Your task to perform on an android device: Open eBay Image 0: 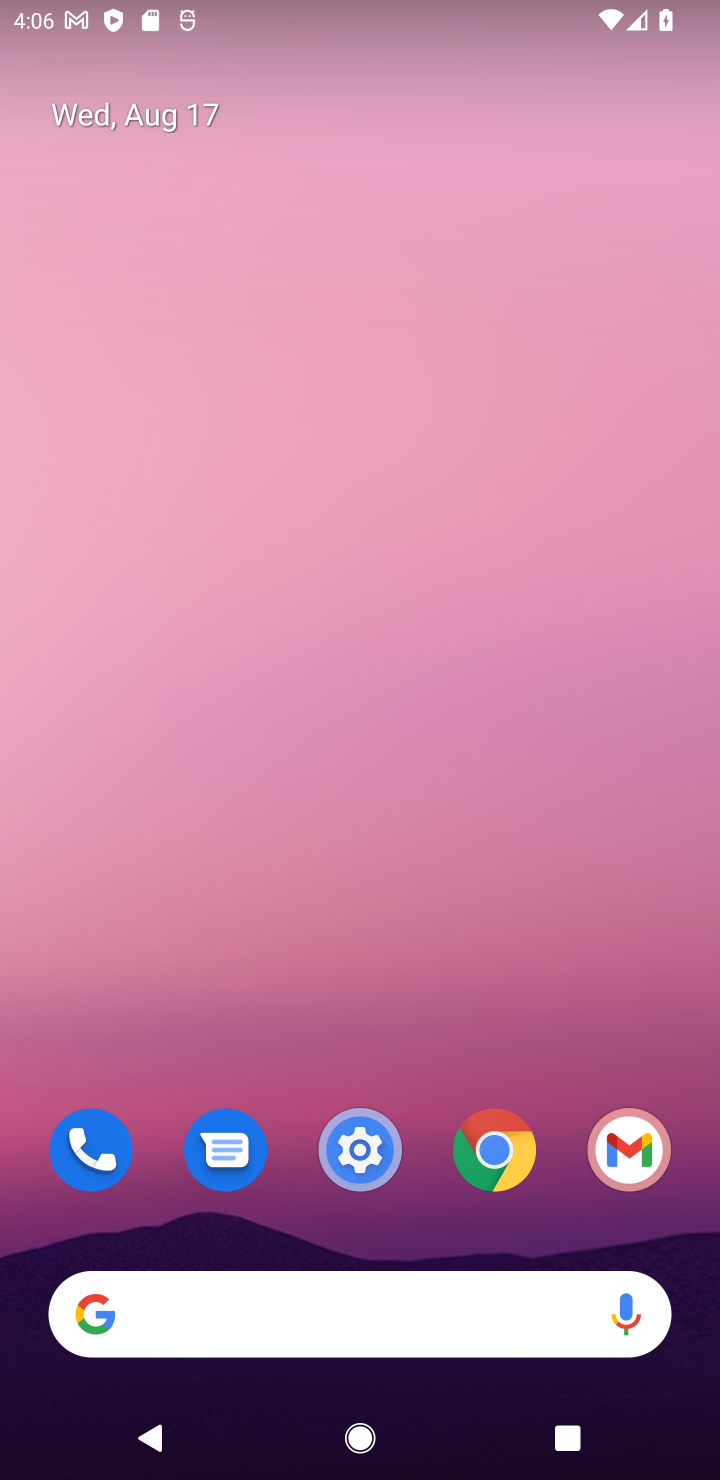
Step 0: drag from (645, 1042) to (300, 53)
Your task to perform on an android device: Open eBay Image 1: 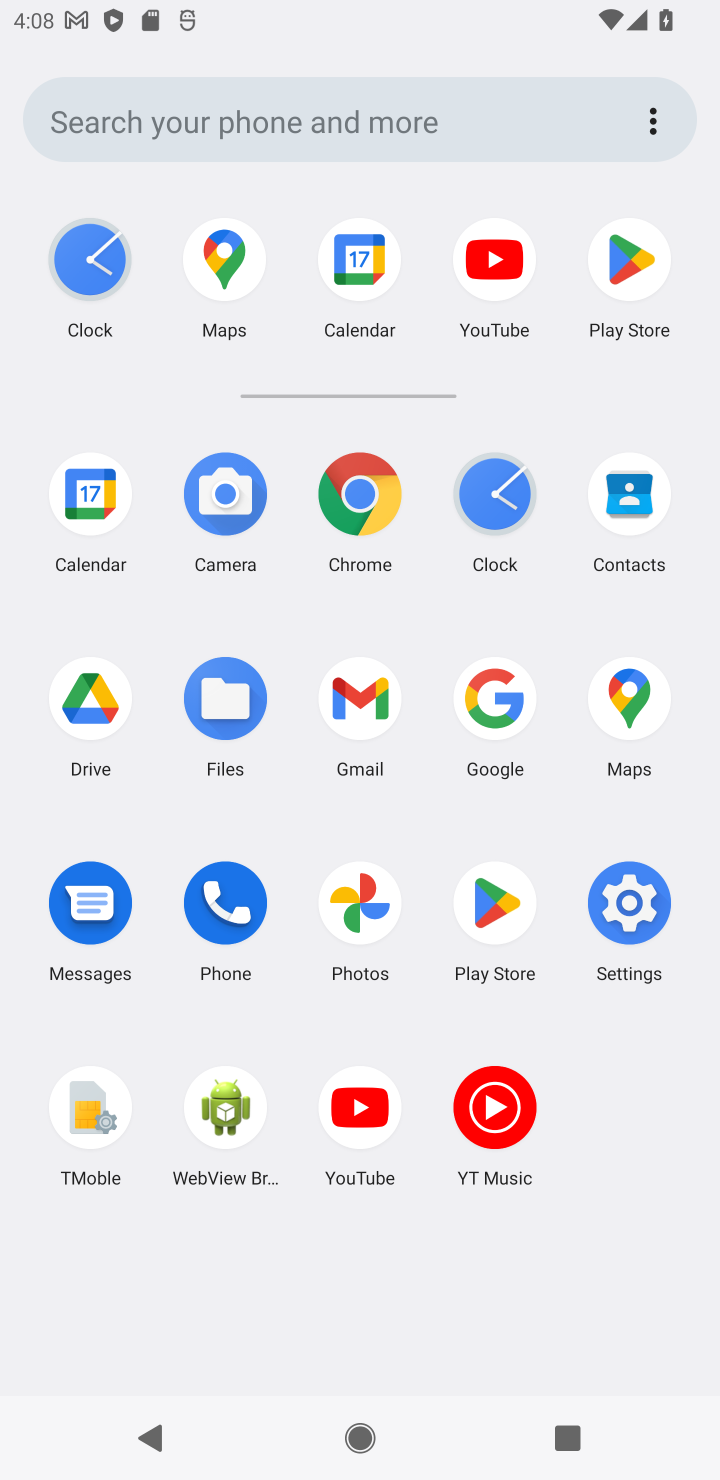
Step 1: click (516, 672)
Your task to perform on an android device: Open eBay Image 2: 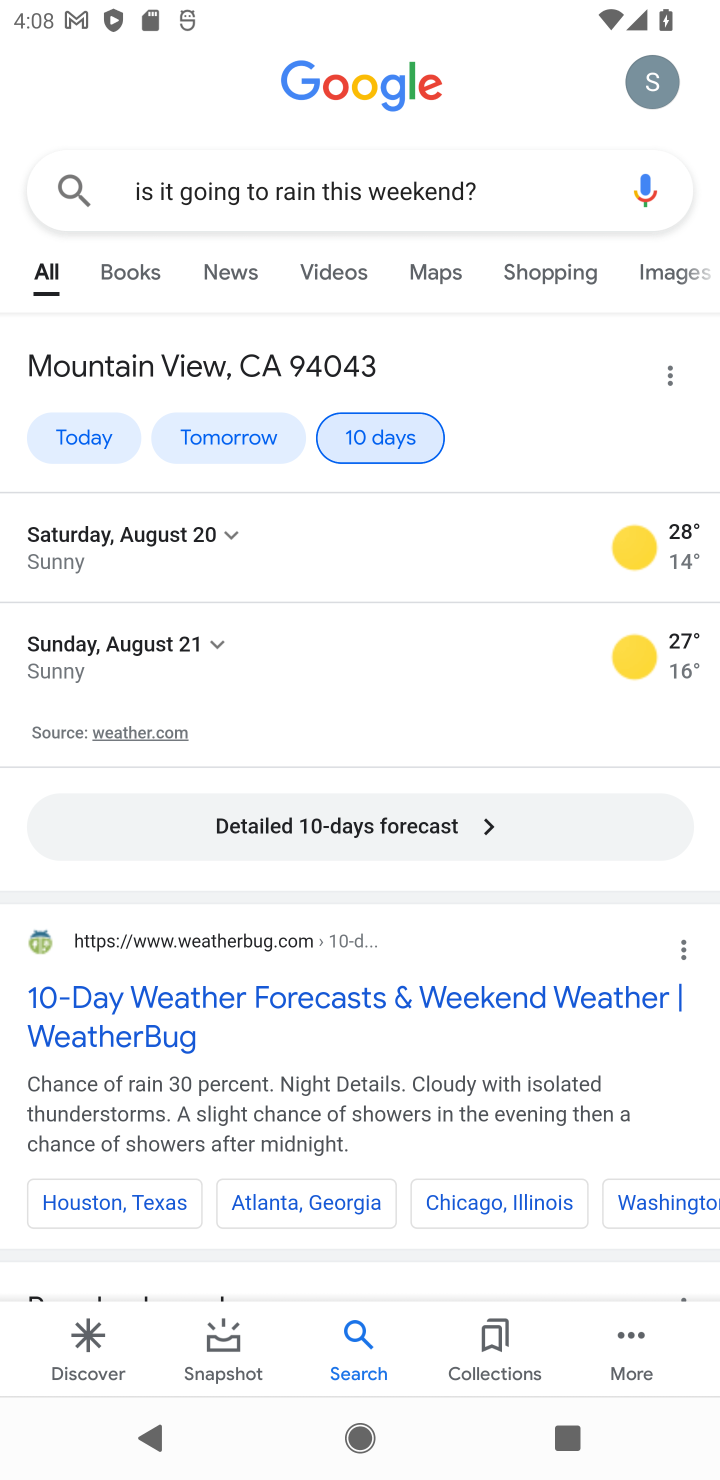
Step 2: press back button
Your task to perform on an android device: Open eBay Image 3: 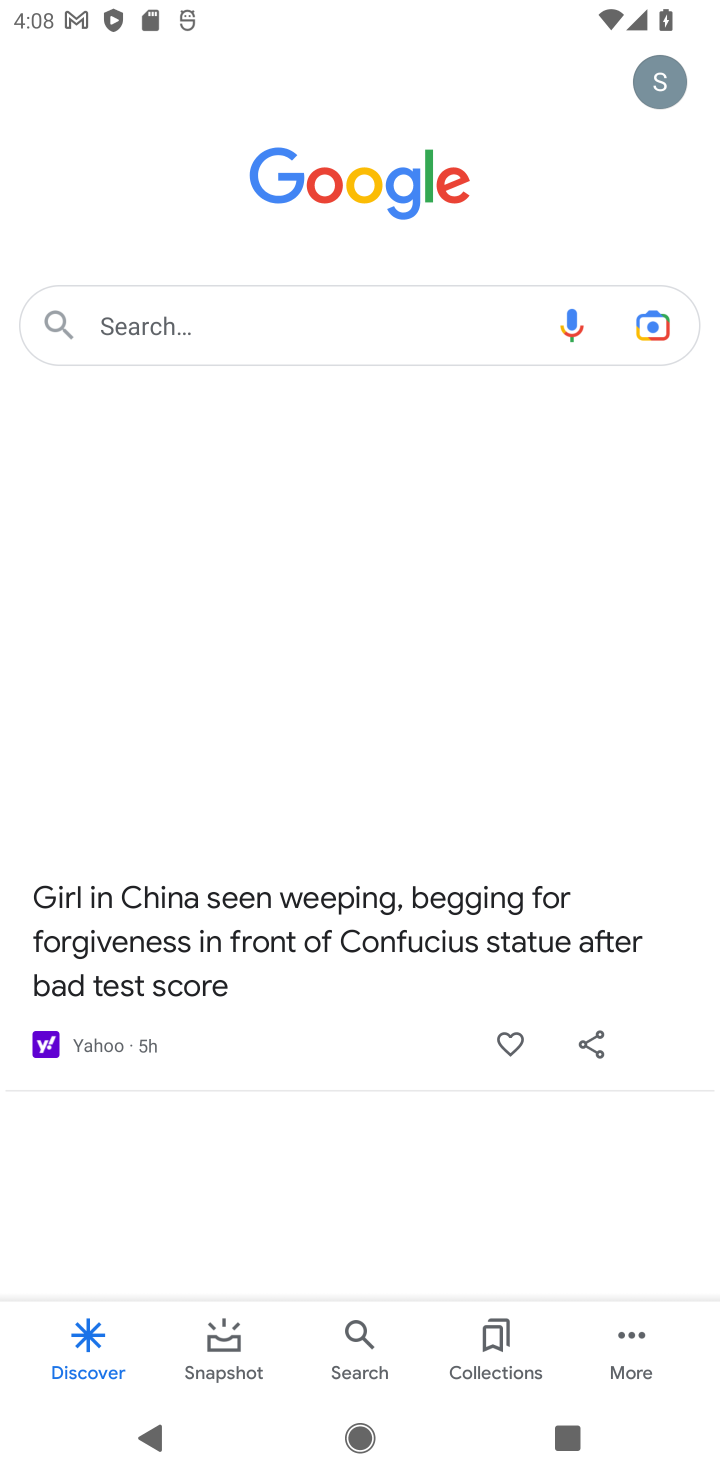
Step 3: click (247, 322)
Your task to perform on an android device: Open eBay Image 4: 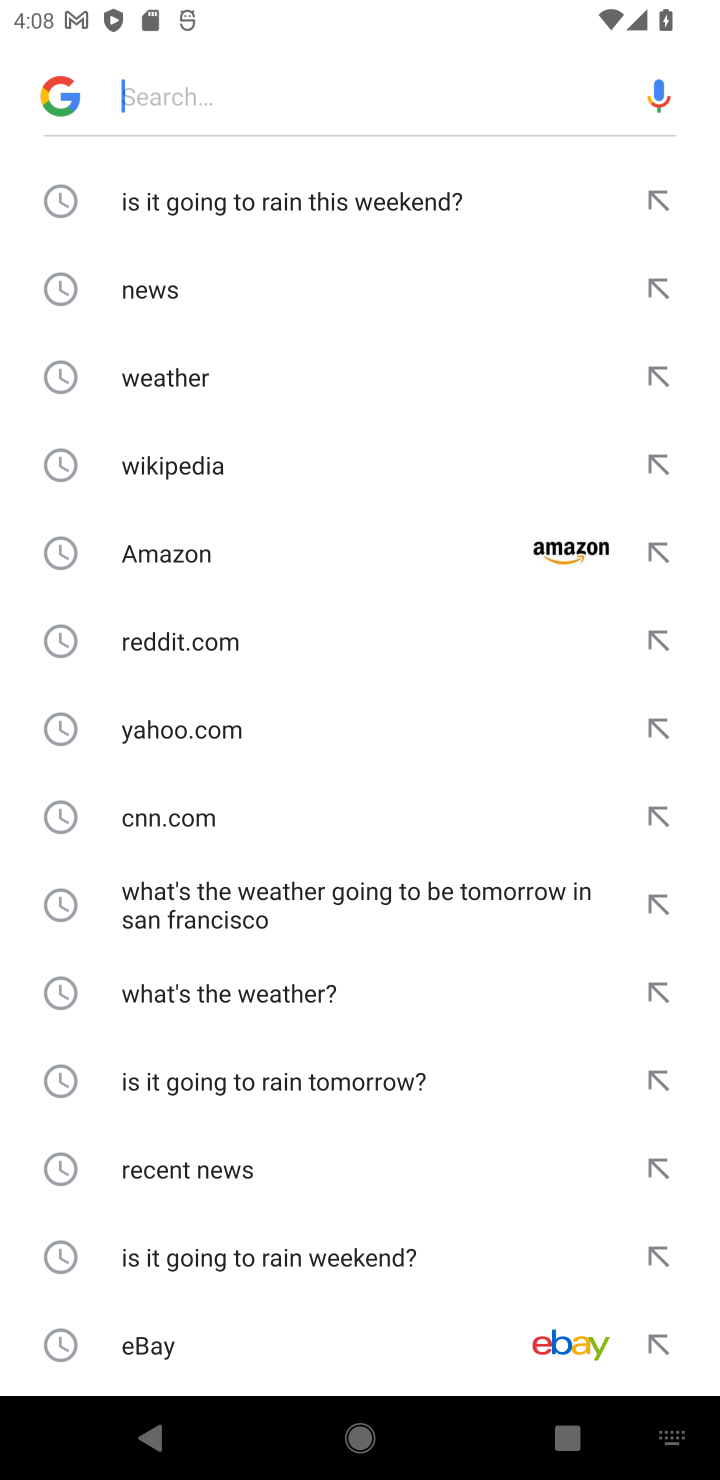
Step 4: click (189, 1351)
Your task to perform on an android device: Open eBay Image 5: 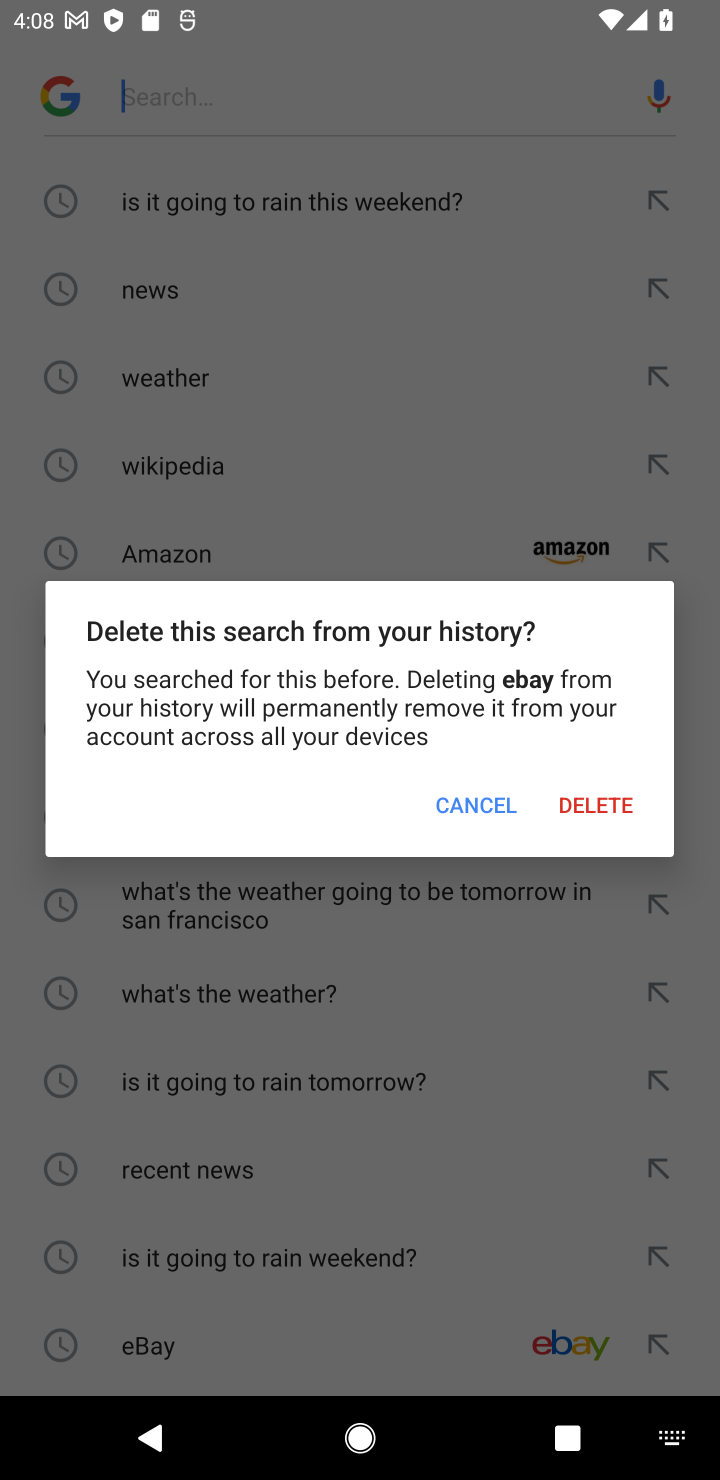
Step 5: click (450, 800)
Your task to perform on an android device: Open eBay Image 6: 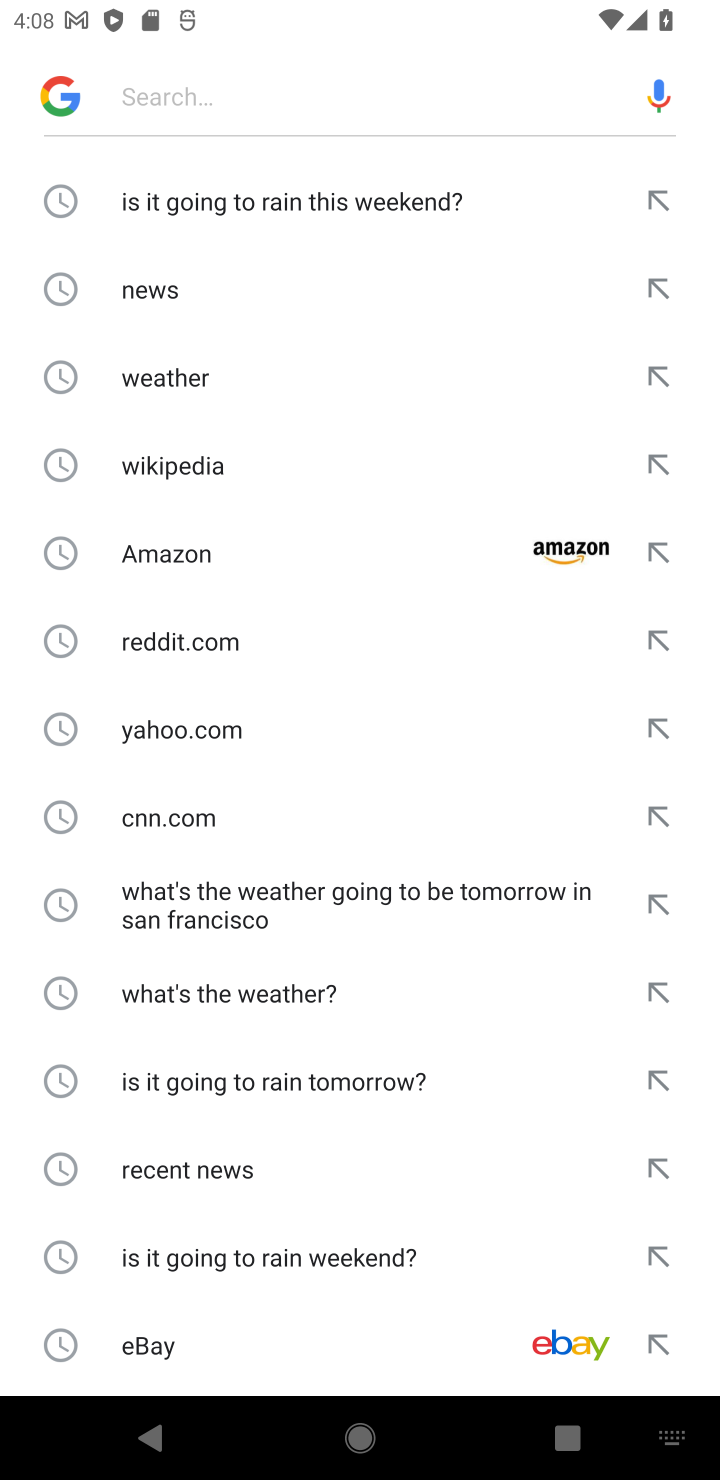
Step 6: click (164, 1345)
Your task to perform on an android device: Open eBay Image 7: 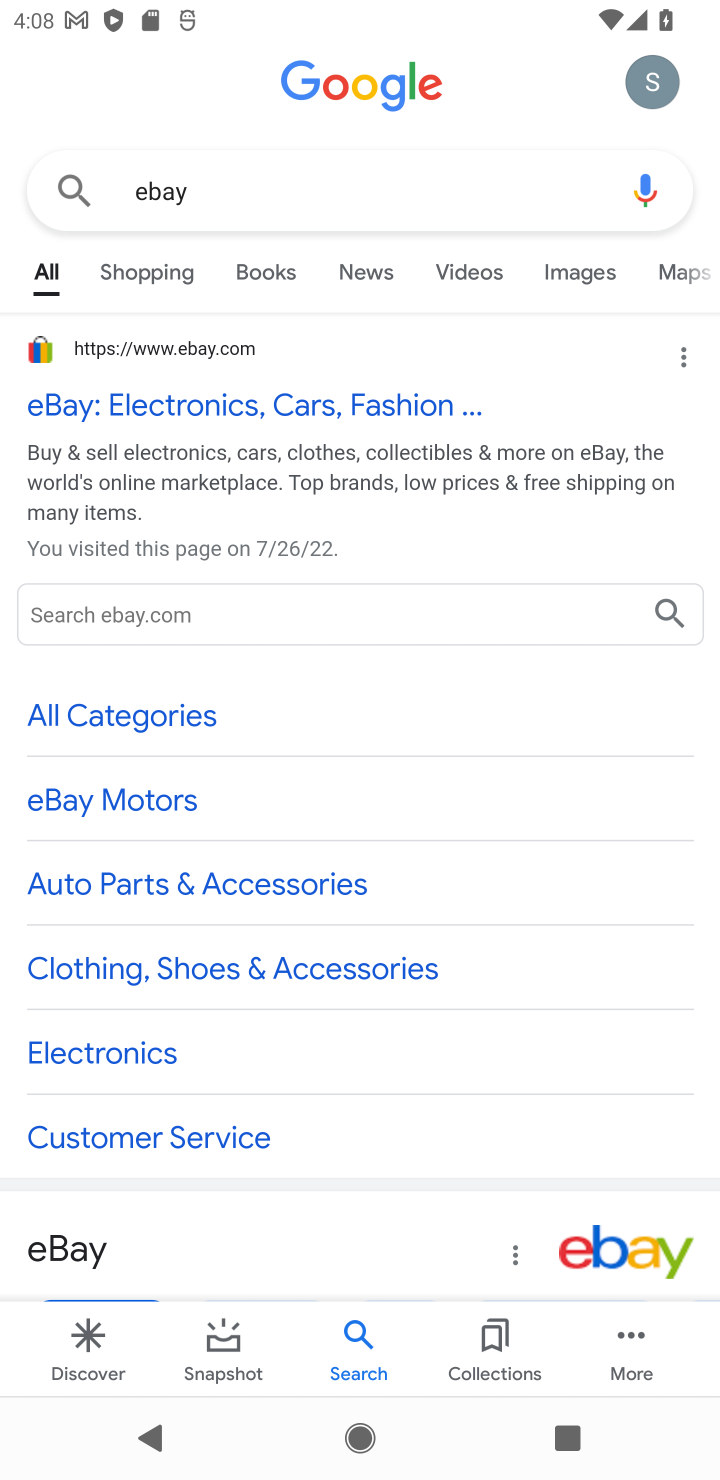
Step 7: task complete